Your task to perform on an android device: Go to Android settings Image 0: 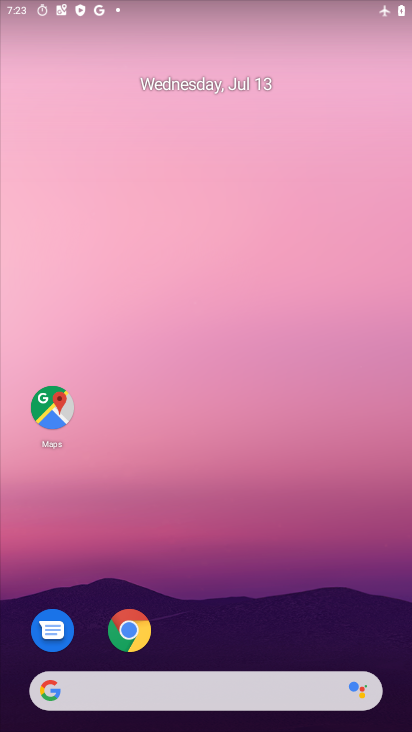
Step 0: drag from (183, 531) to (169, 199)
Your task to perform on an android device: Go to Android settings Image 1: 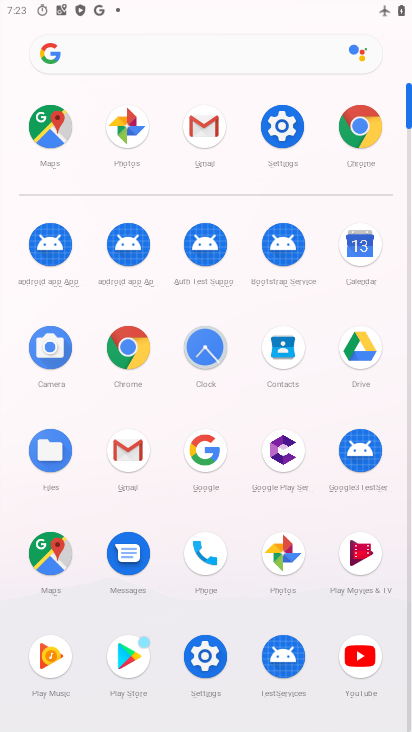
Step 1: click (286, 157)
Your task to perform on an android device: Go to Android settings Image 2: 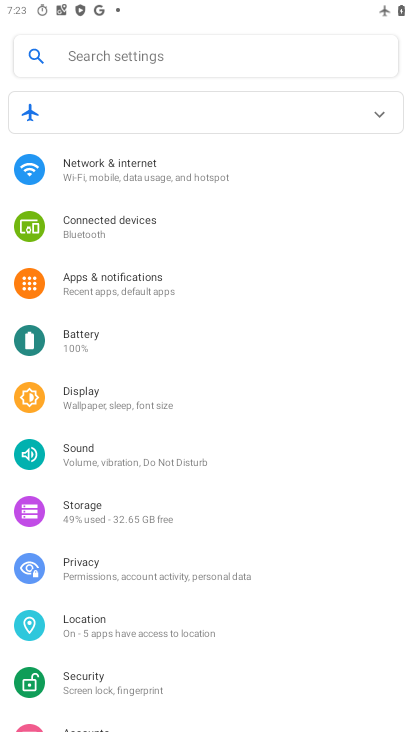
Step 2: drag from (98, 626) to (240, 0)
Your task to perform on an android device: Go to Android settings Image 3: 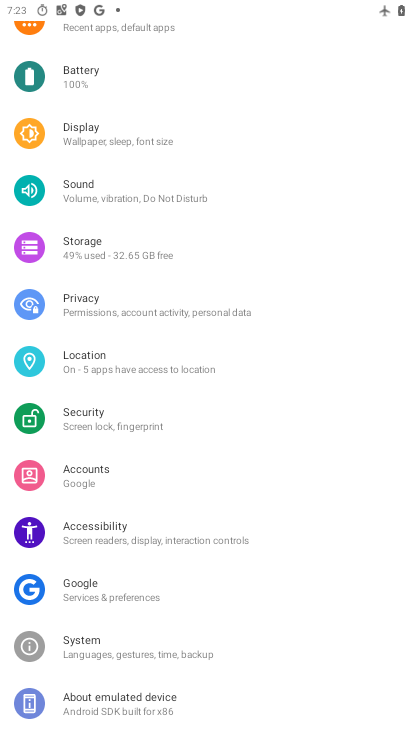
Step 3: click (140, 696)
Your task to perform on an android device: Go to Android settings Image 4: 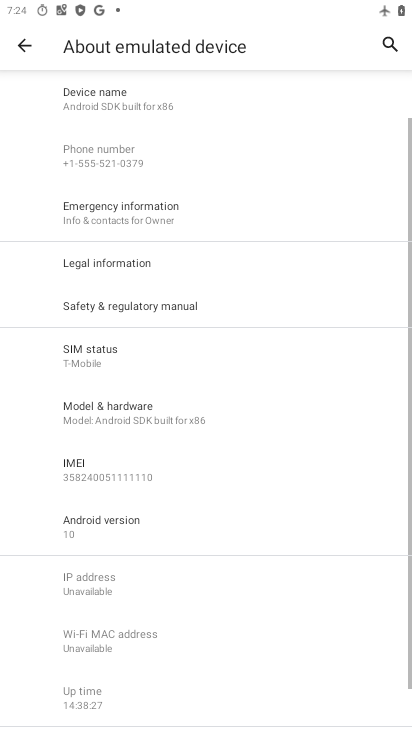
Step 4: task complete